Your task to perform on an android device: toggle wifi Image 0: 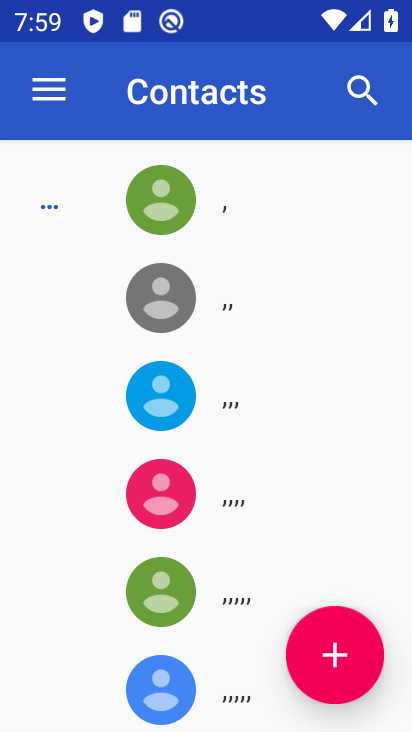
Step 0: press home button
Your task to perform on an android device: toggle wifi Image 1: 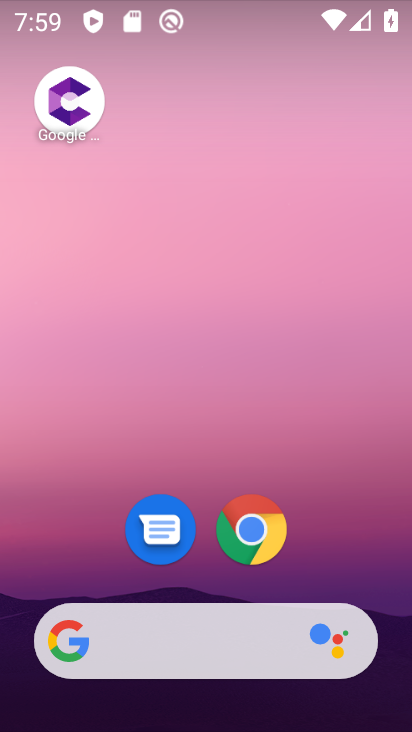
Step 1: drag from (367, 552) to (372, 174)
Your task to perform on an android device: toggle wifi Image 2: 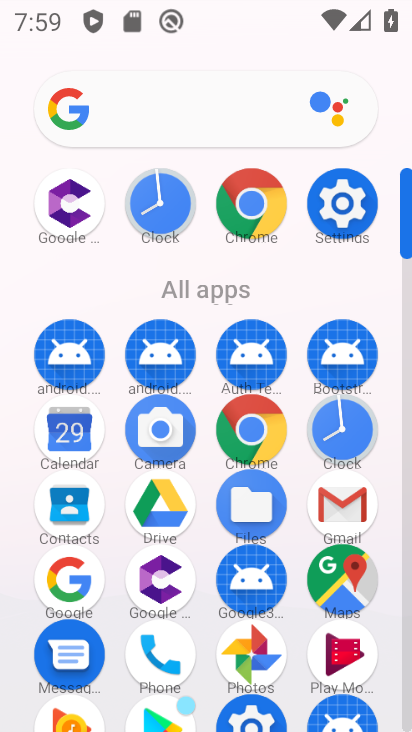
Step 2: click (328, 207)
Your task to perform on an android device: toggle wifi Image 3: 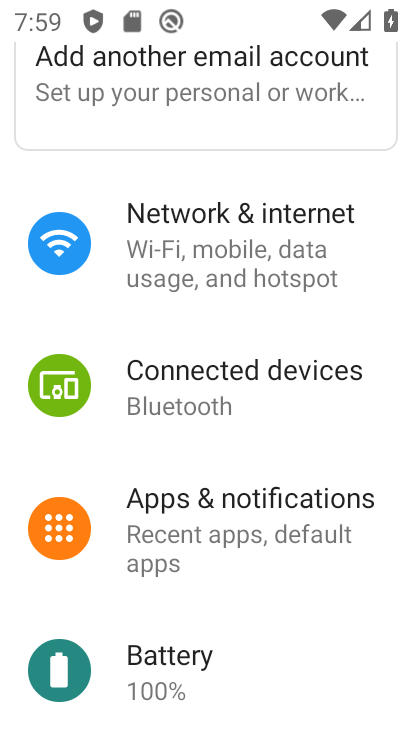
Step 3: click (254, 219)
Your task to perform on an android device: toggle wifi Image 4: 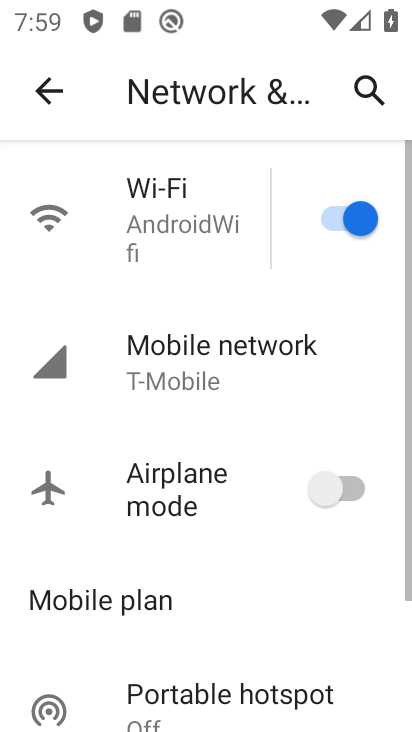
Step 4: click (367, 200)
Your task to perform on an android device: toggle wifi Image 5: 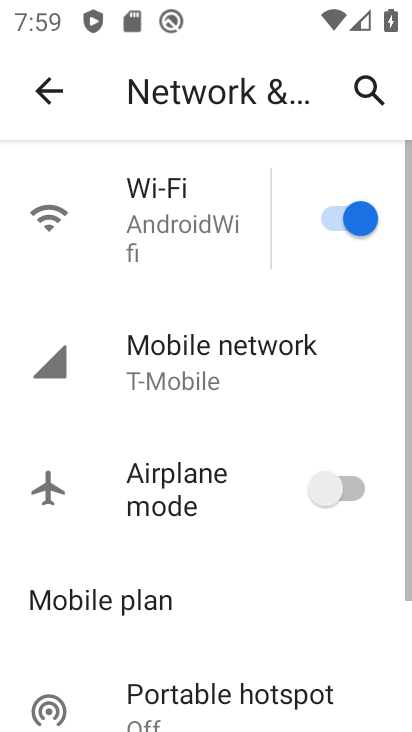
Step 5: click (367, 200)
Your task to perform on an android device: toggle wifi Image 6: 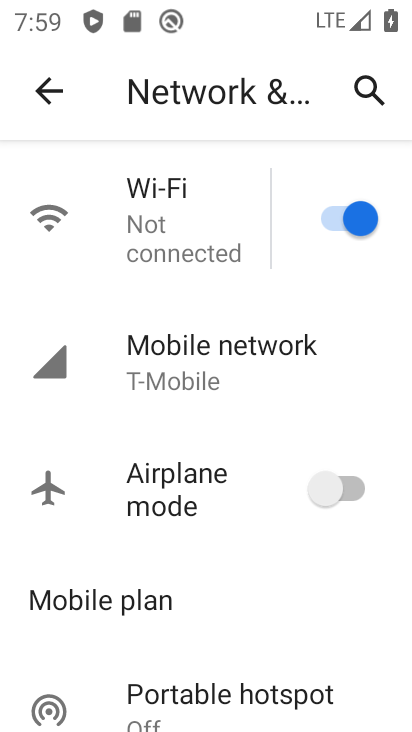
Step 6: task complete